Your task to perform on an android device: Turn off the flashlight Image 0: 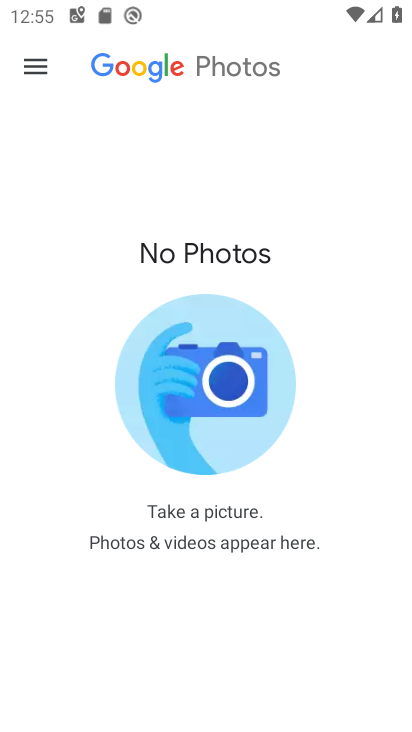
Step 0: press home button
Your task to perform on an android device: Turn off the flashlight Image 1: 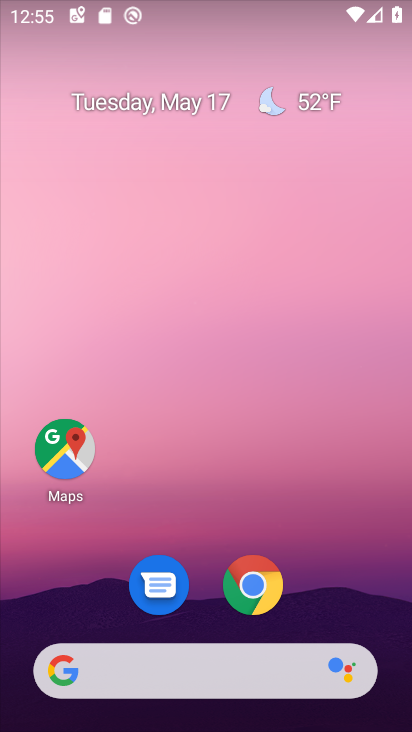
Step 1: drag from (297, 478) to (318, 32)
Your task to perform on an android device: Turn off the flashlight Image 2: 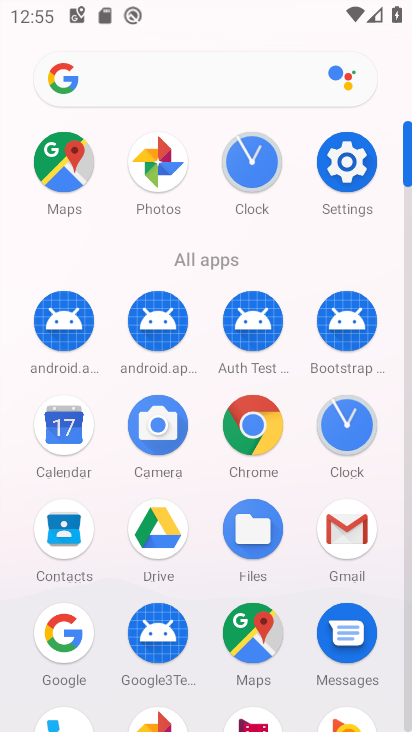
Step 2: click (350, 155)
Your task to perform on an android device: Turn off the flashlight Image 3: 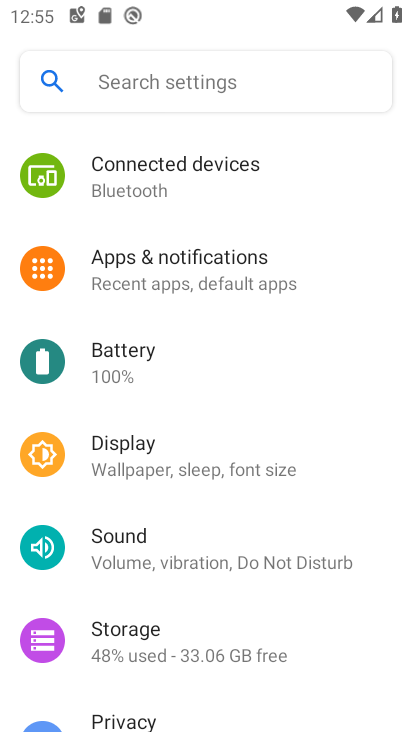
Step 3: drag from (291, 224) to (265, 696)
Your task to perform on an android device: Turn off the flashlight Image 4: 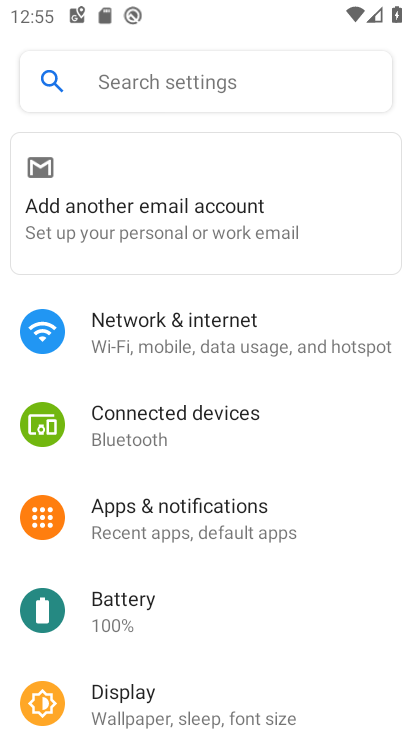
Step 4: click (276, 78)
Your task to perform on an android device: Turn off the flashlight Image 5: 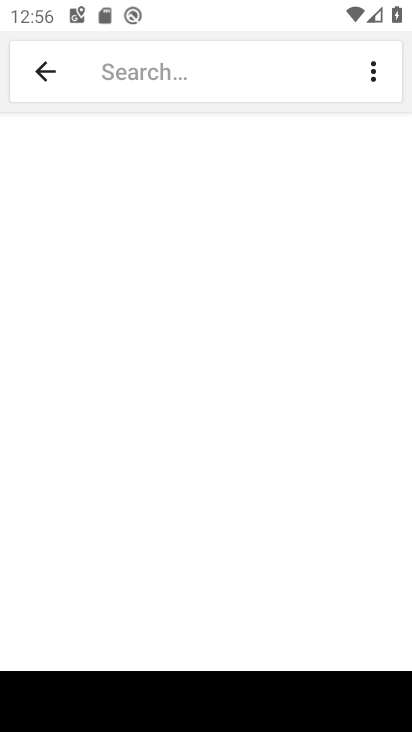
Step 5: type "Flashlight"
Your task to perform on an android device: Turn off the flashlight Image 6: 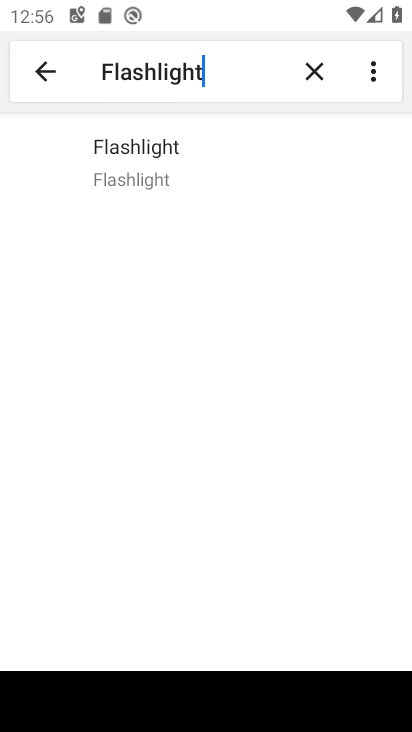
Step 6: click (154, 158)
Your task to perform on an android device: Turn off the flashlight Image 7: 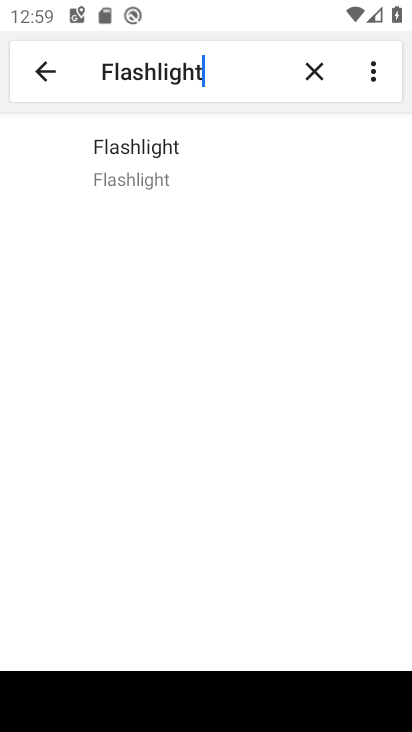
Step 7: task complete